Your task to perform on an android device: Open Android settings Image 0: 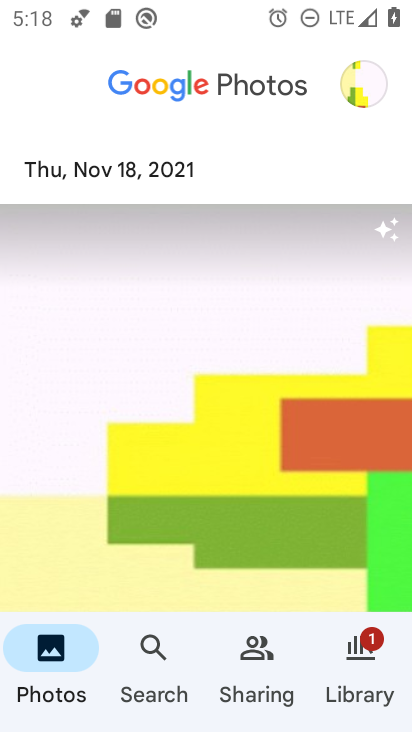
Step 0: press home button
Your task to perform on an android device: Open Android settings Image 1: 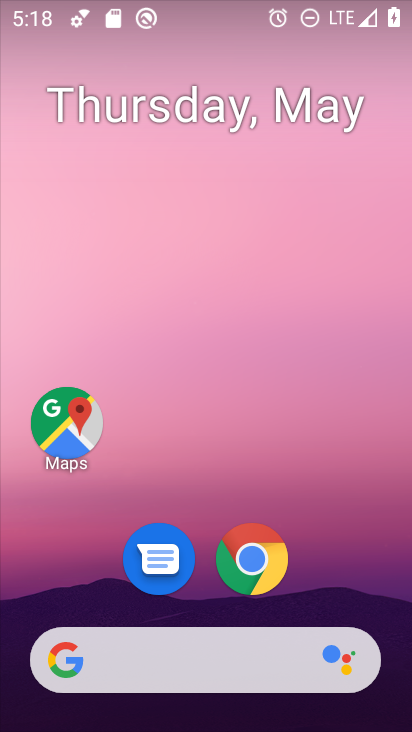
Step 1: drag from (333, 479) to (145, 4)
Your task to perform on an android device: Open Android settings Image 2: 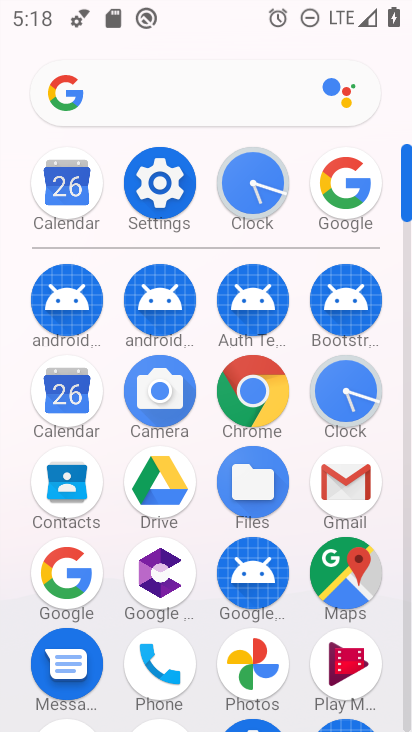
Step 2: click (154, 191)
Your task to perform on an android device: Open Android settings Image 3: 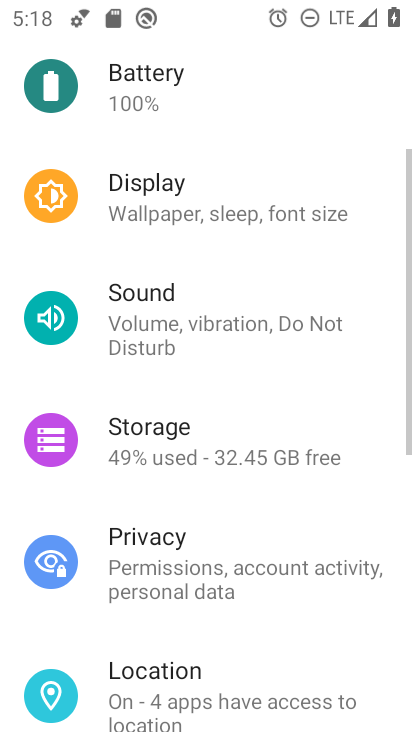
Step 3: drag from (302, 663) to (258, 23)
Your task to perform on an android device: Open Android settings Image 4: 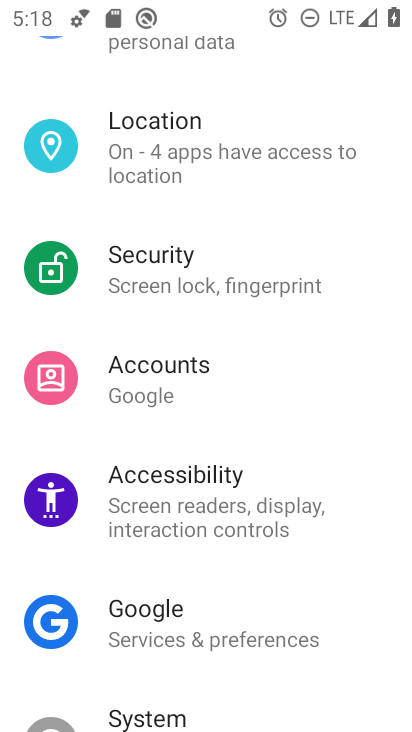
Step 4: drag from (253, 572) to (155, 12)
Your task to perform on an android device: Open Android settings Image 5: 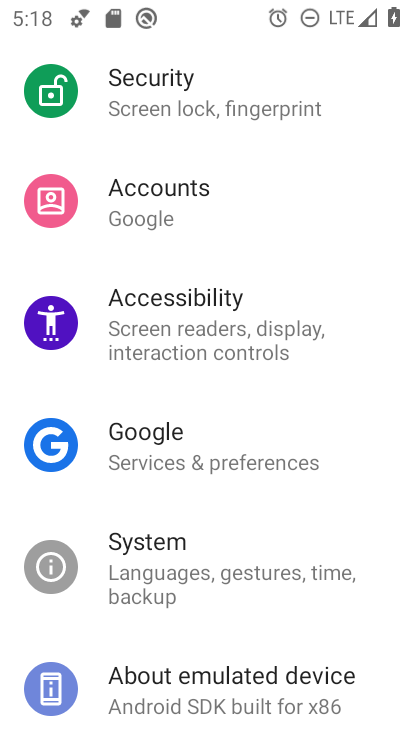
Step 5: click (237, 662)
Your task to perform on an android device: Open Android settings Image 6: 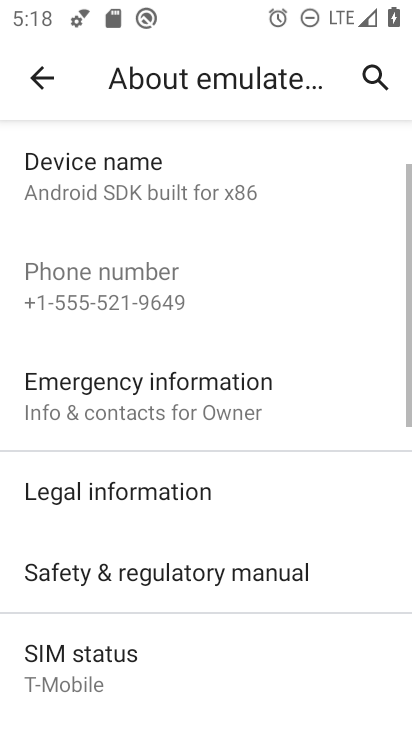
Step 6: drag from (211, 581) to (212, 74)
Your task to perform on an android device: Open Android settings Image 7: 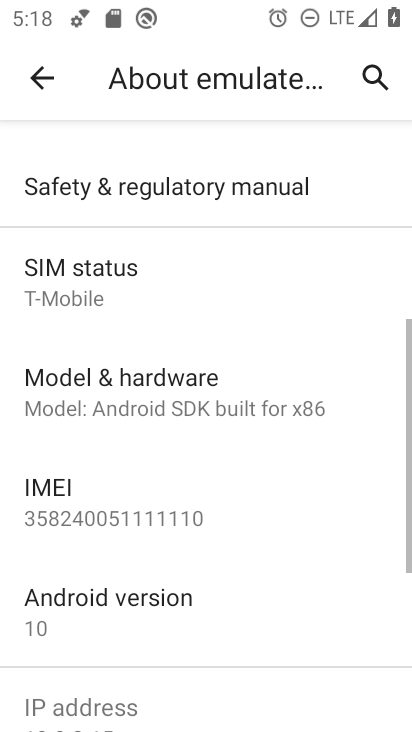
Step 7: click (187, 637)
Your task to perform on an android device: Open Android settings Image 8: 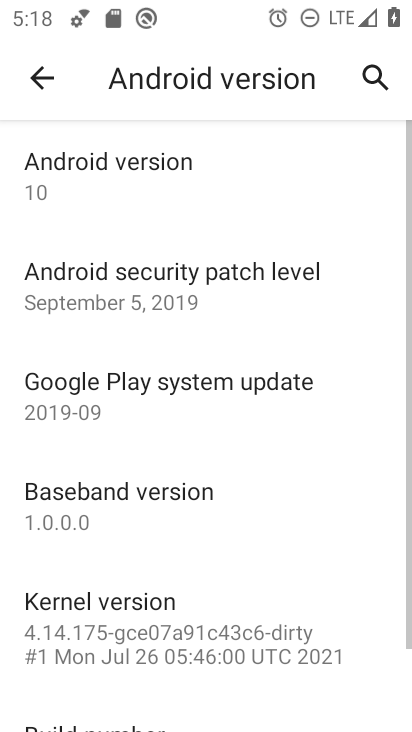
Step 8: task complete